Your task to perform on an android device: Clear the shopping cart on amazon.com. Search for "usb-c" on amazon.com, select the first entry, add it to the cart, then select checkout. Image 0: 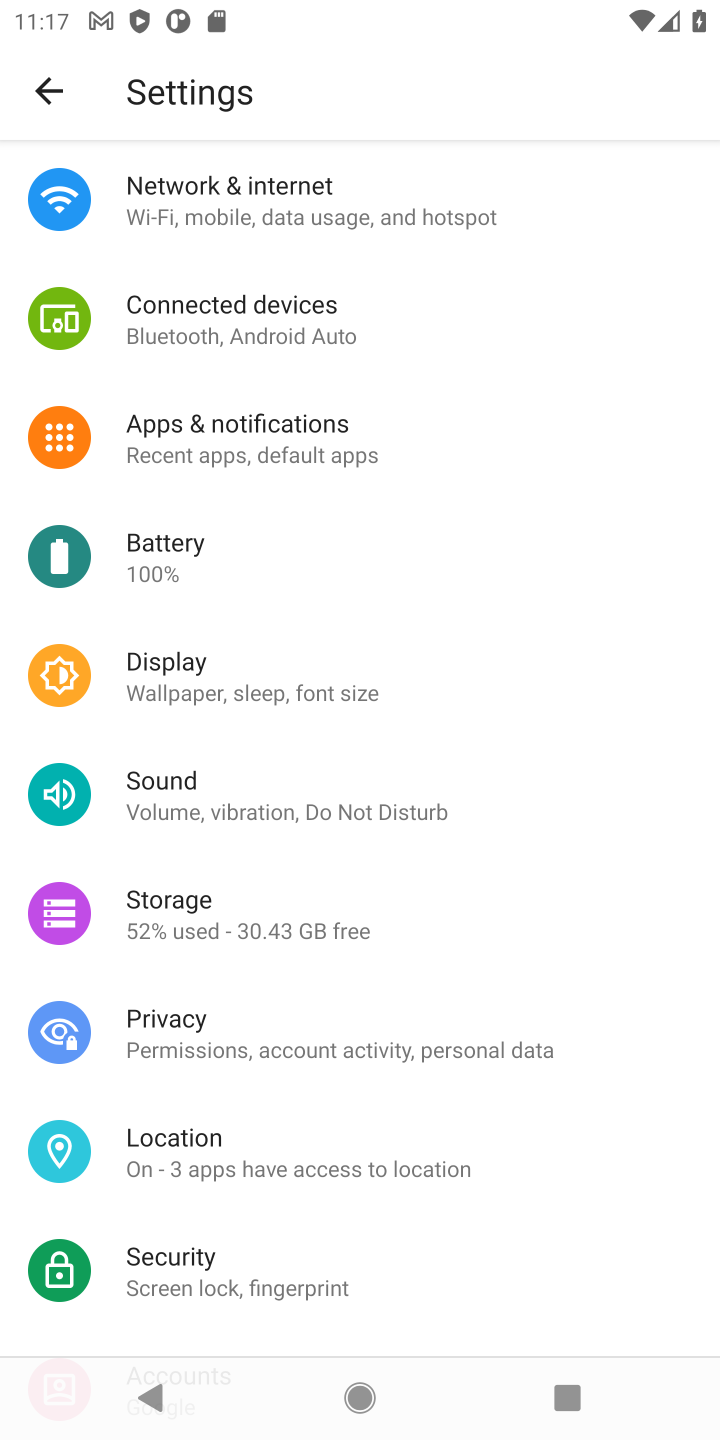
Step 0: press home button
Your task to perform on an android device: Clear the shopping cart on amazon.com. Search for "usb-c" on amazon.com, select the first entry, add it to the cart, then select checkout. Image 1: 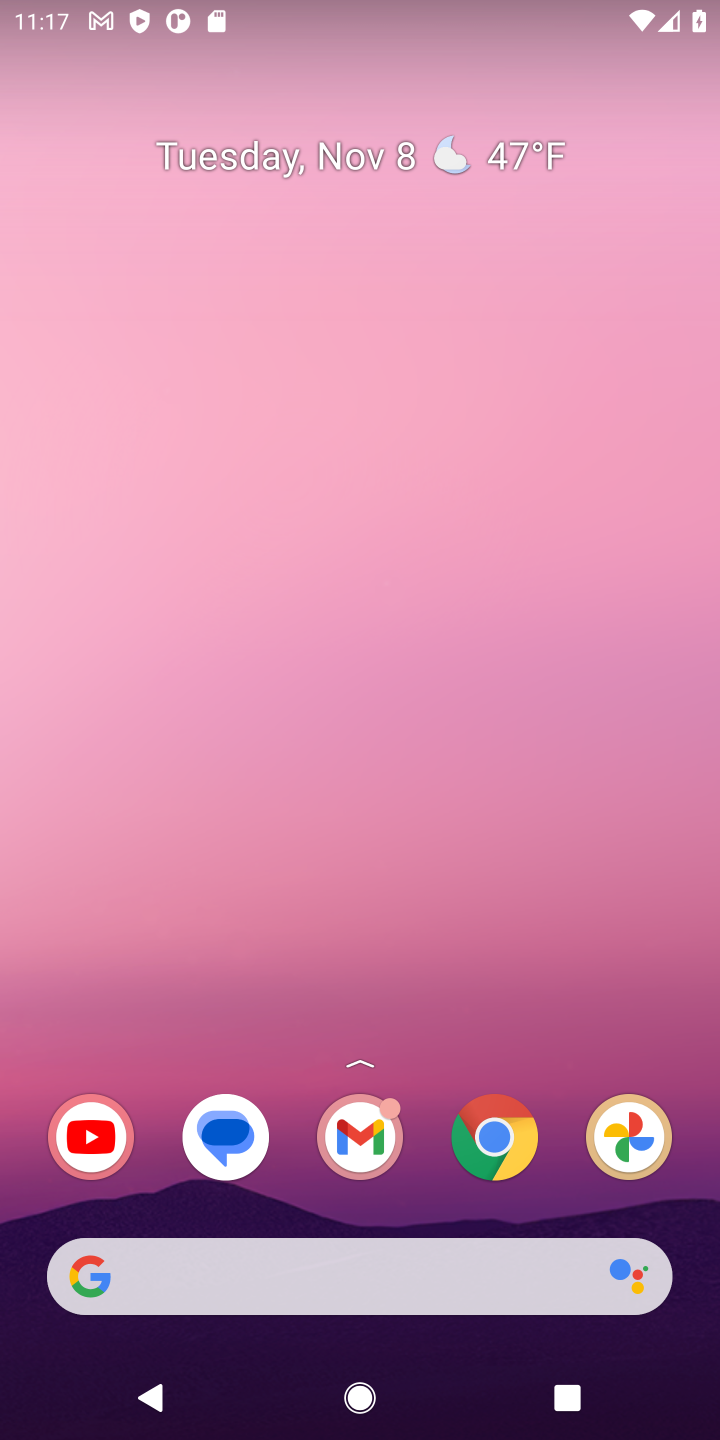
Step 1: click (501, 1147)
Your task to perform on an android device: Clear the shopping cart on amazon.com. Search for "usb-c" on amazon.com, select the first entry, add it to the cart, then select checkout. Image 2: 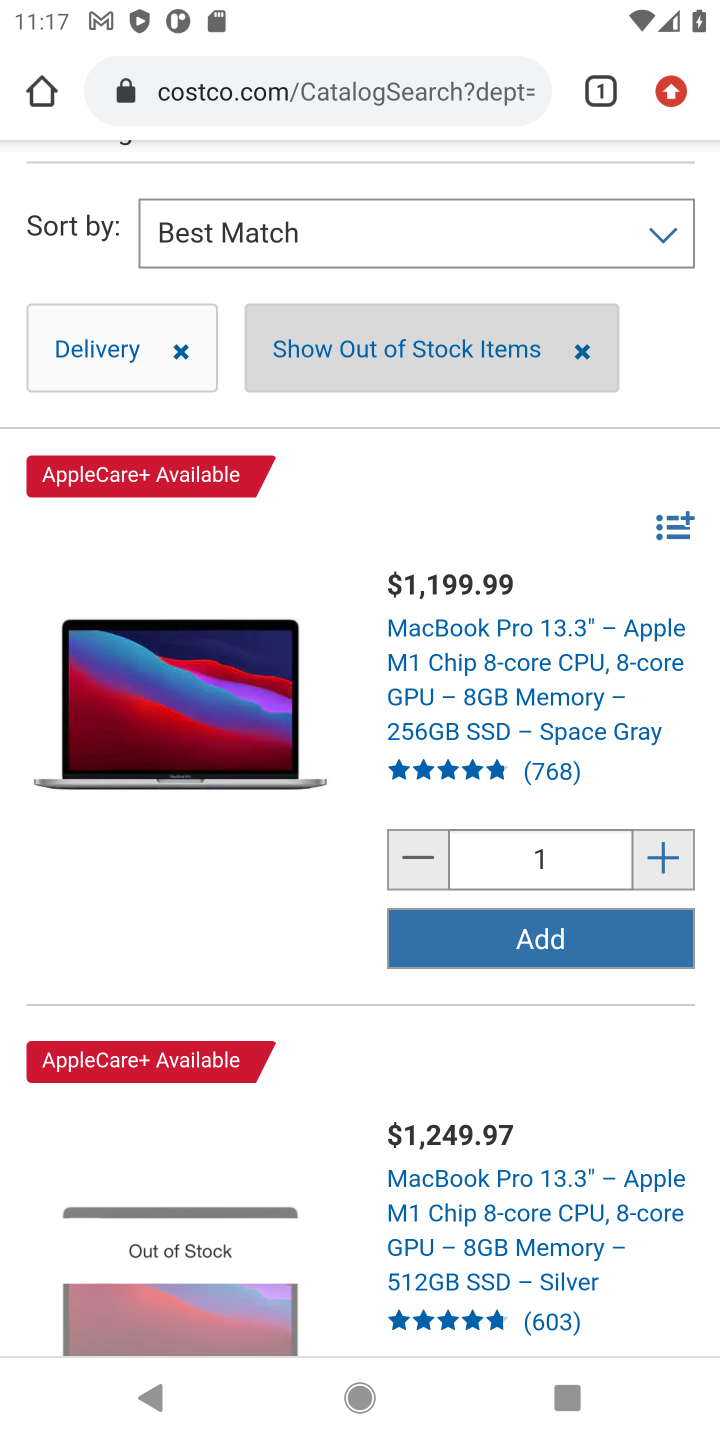
Step 2: click (413, 84)
Your task to perform on an android device: Clear the shopping cart on amazon.com. Search for "usb-c" on amazon.com, select the first entry, add it to the cart, then select checkout. Image 3: 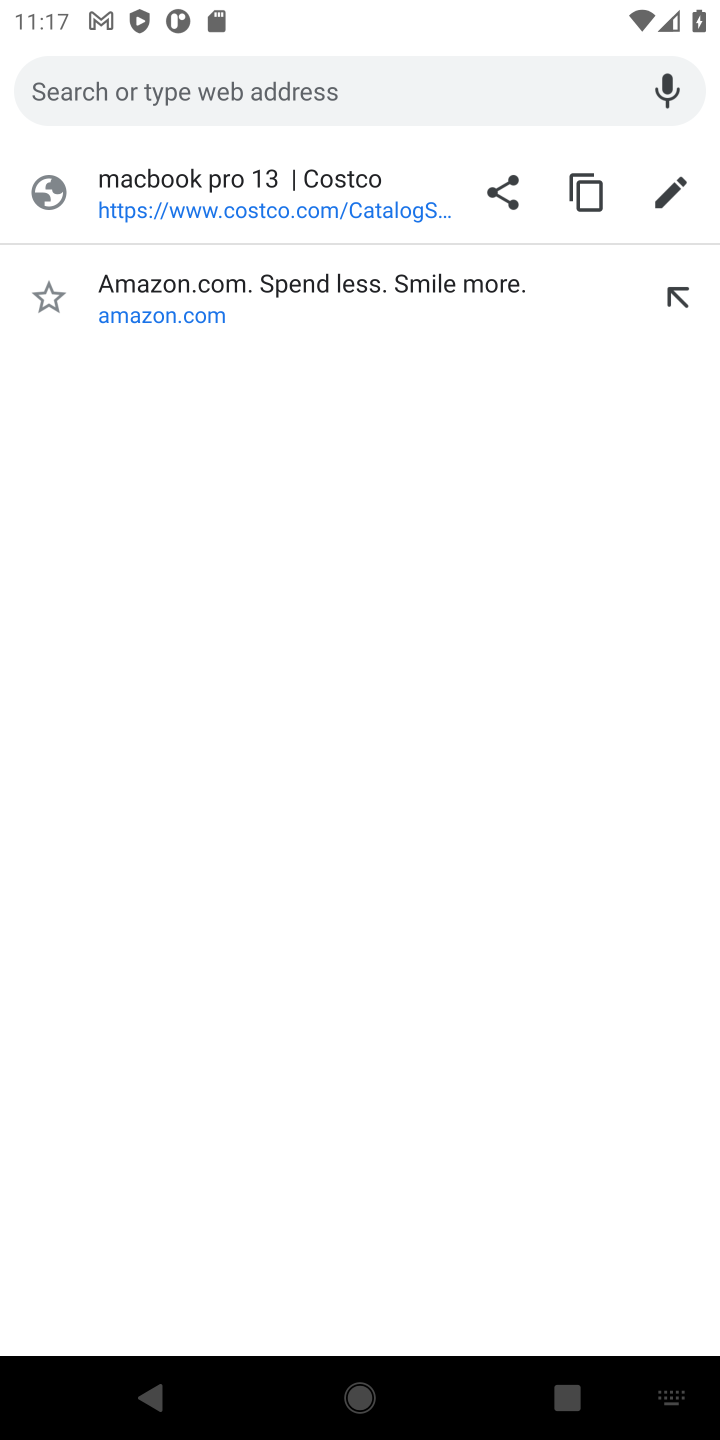
Step 3: type "amazon.com"
Your task to perform on an android device: Clear the shopping cart on amazon.com. Search for "usb-c" on amazon.com, select the first entry, add it to the cart, then select checkout. Image 4: 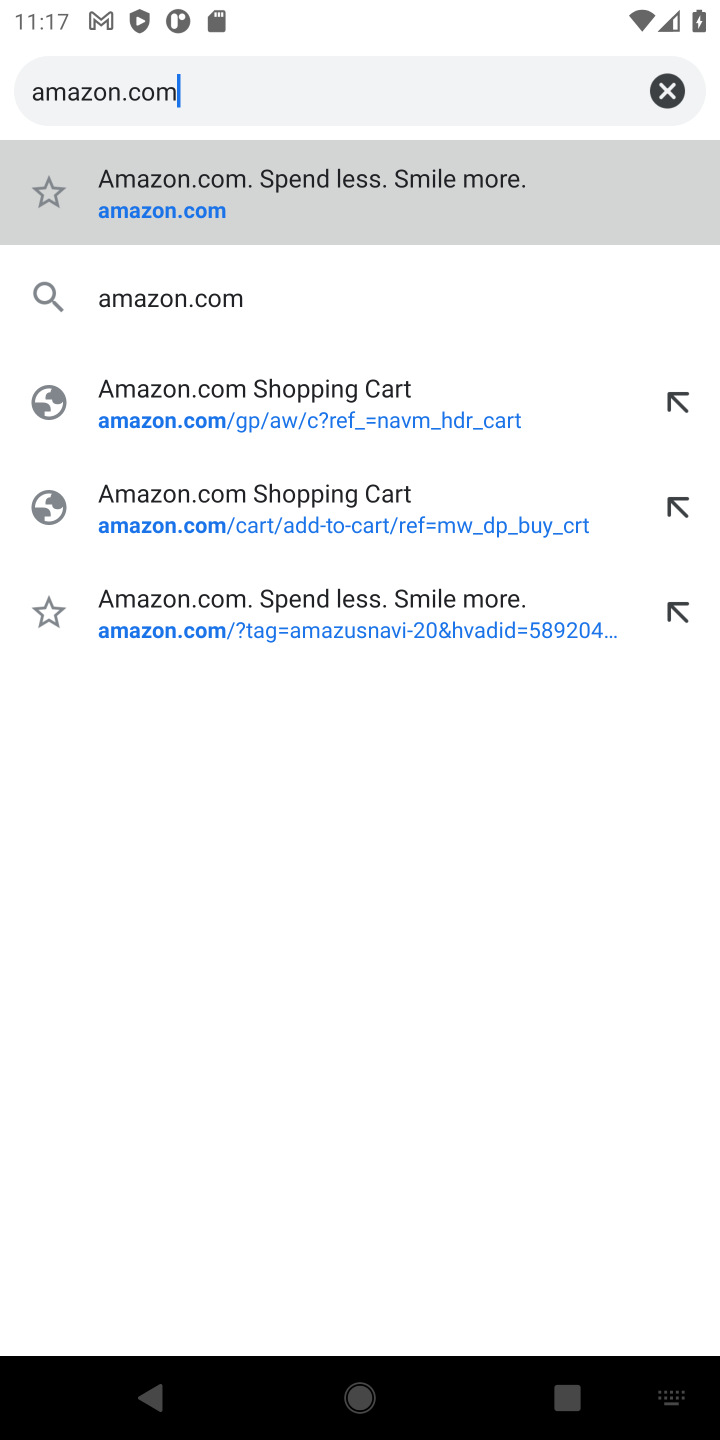
Step 4: click (189, 292)
Your task to perform on an android device: Clear the shopping cart on amazon.com. Search for "usb-c" on amazon.com, select the first entry, add it to the cart, then select checkout. Image 5: 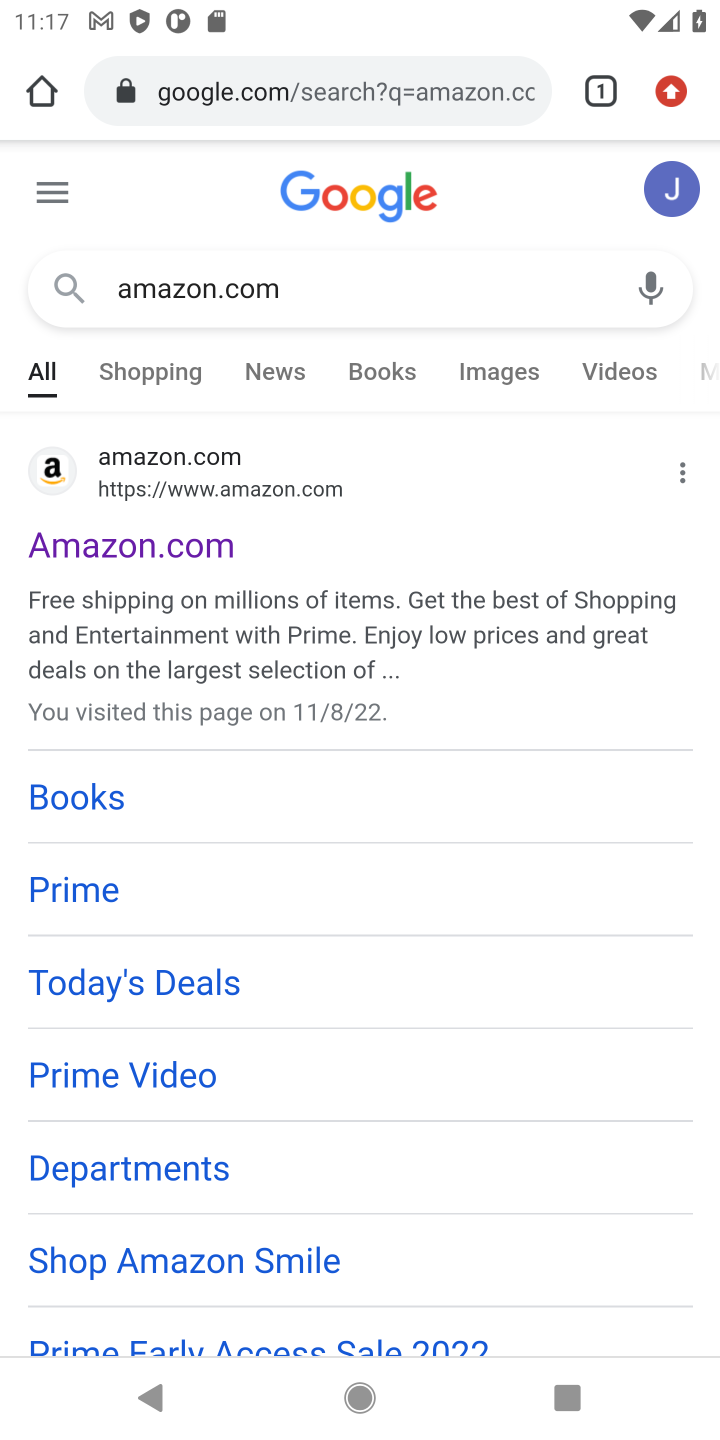
Step 5: click (174, 540)
Your task to perform on an android device: Clear the shopping cart on amazon.com. Search for "usb-c" on amazon.com, select the first entry, add it to the cart, then select checkout. Image 6: 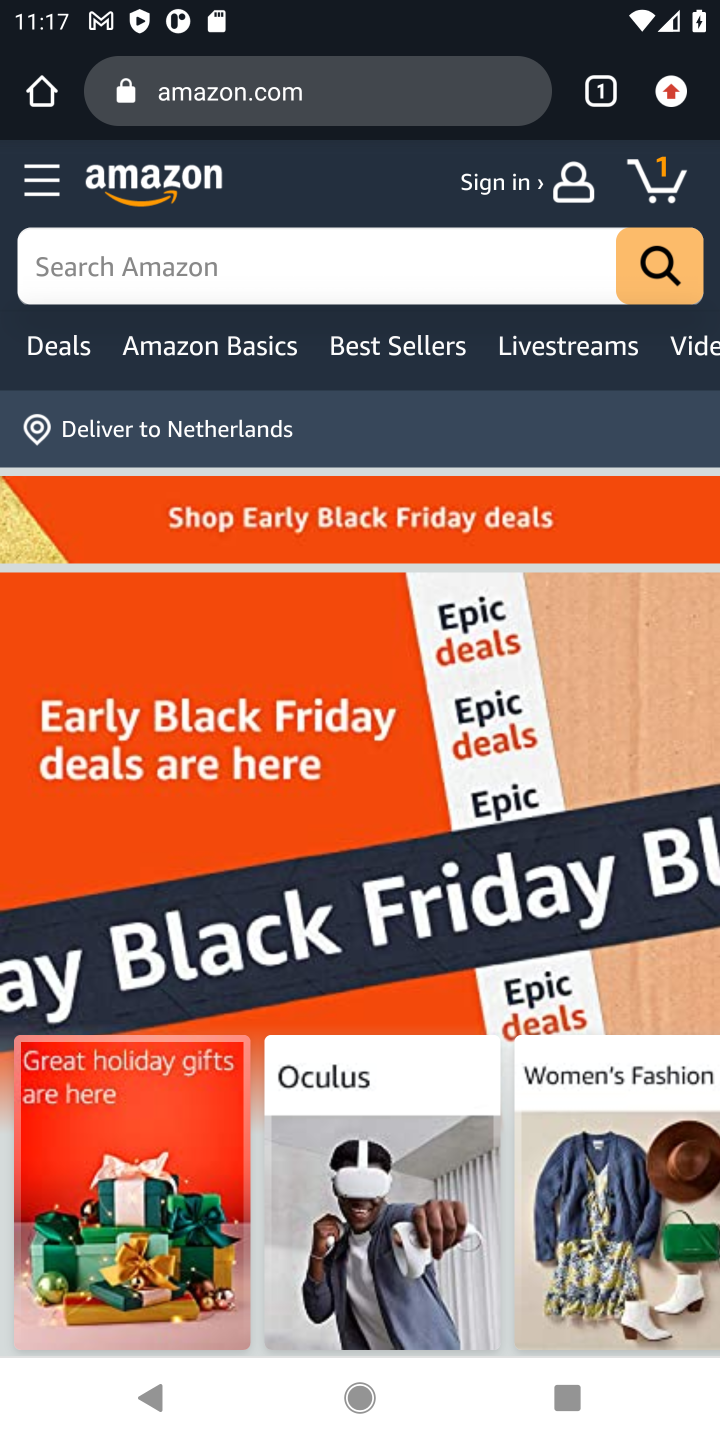
Step 6: click (660, 175)
Your task to perform on an android device: Clear the shopping cart on amazon.com. Search for "usb-c" on amazon.com, select the first entry, add it to the cart, then select checkout. Image 7: 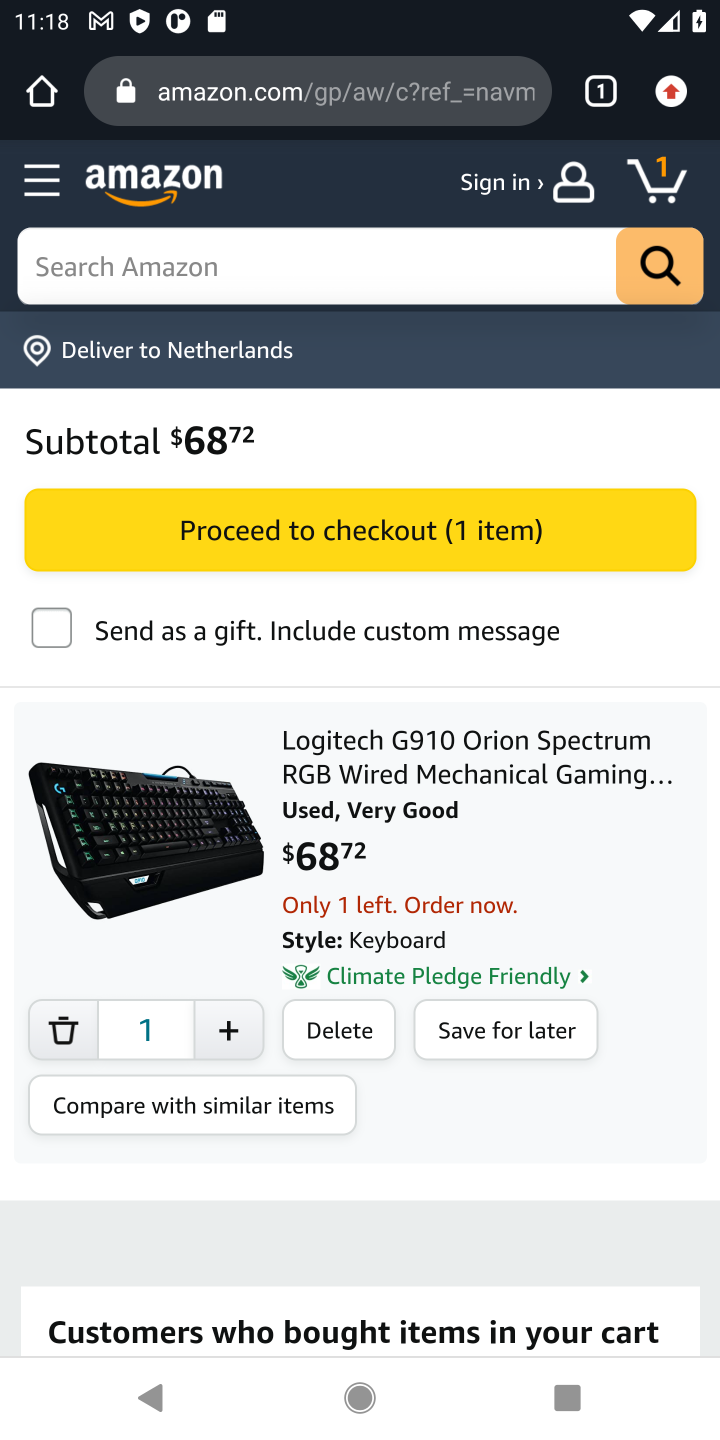
Step 7: click (350, 1035)
Your task to perform on an android device: Clear the shopping cart on amazon.com. Search for "usb-c" on amazon.com, select the first entry, add it to the cart, then select checkout. Image 8: 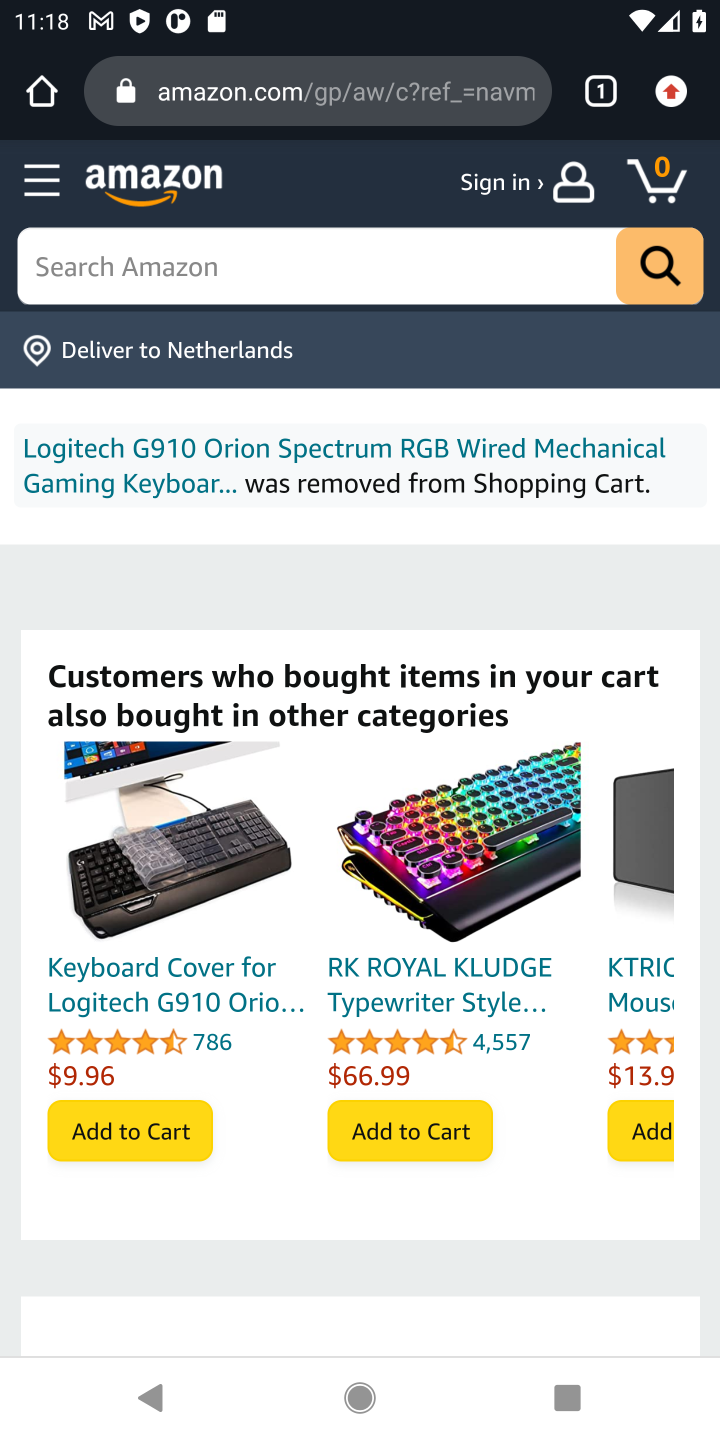
Step 8: click (392, 269)
Your task to perform on an android device: Clear the shopping cart on amazon.com. Search for "usb-c" on amazon.com, select the first entry, add it to the cart, then select checkout. Image 9: 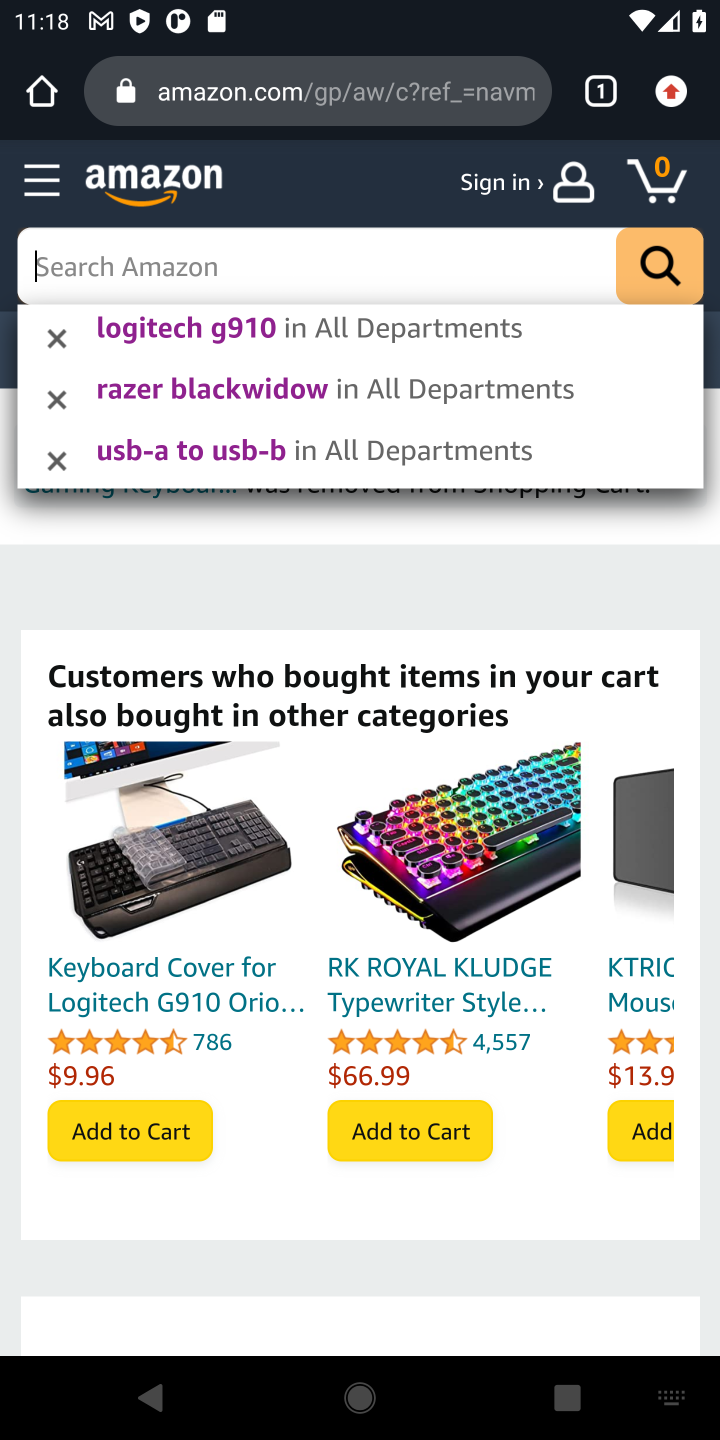
Step 9: type "usb-c"
Your task to perform on an android device: Clear the shopping cart on amazon.com. Search for "usb-c" on amazon.com, select the first entry, add it to the cart, then select checkout. Image 10: 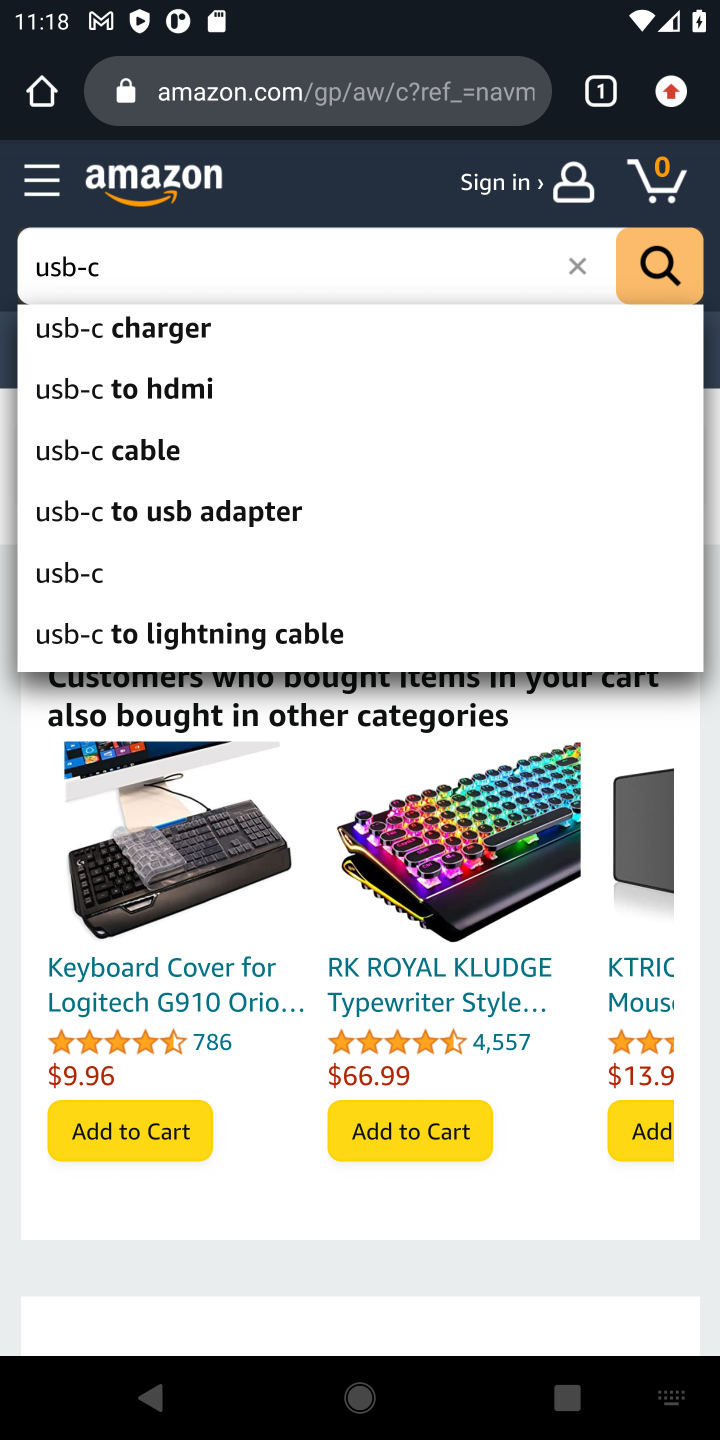
Step 10: click (88, 575)
Your task to perform on an android device: Clear the shopping cart on amazon.com. Search for "usb-c" on amazon.com, select the first entry, add it to the cart, then select checkout. Image 11: 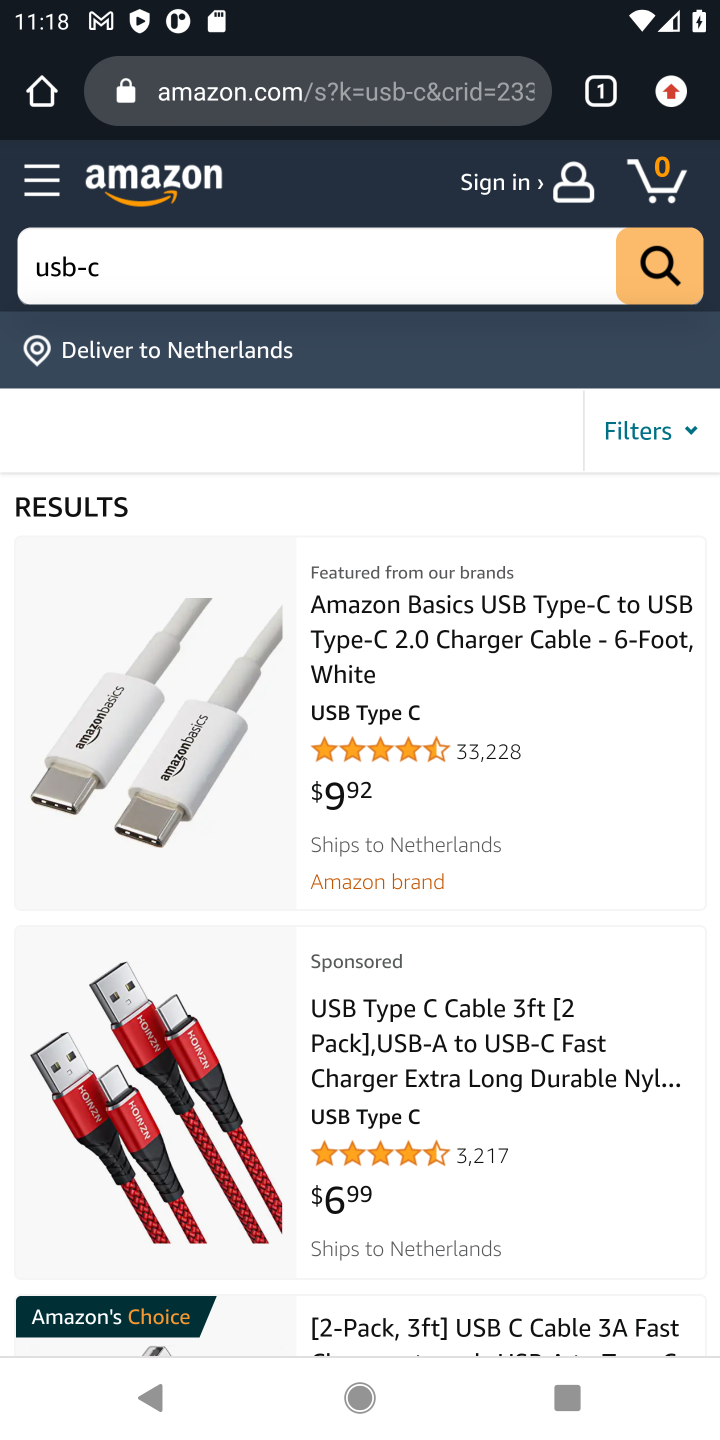
Step 11: drag from (461, 1150) to (507, 692)
Your task to perform on an android device: Clear the shopping cart on amazon.com. Search for "usb-c" on amazon.com, select the first entry, add it to the cart, then select checkout. Image 12: 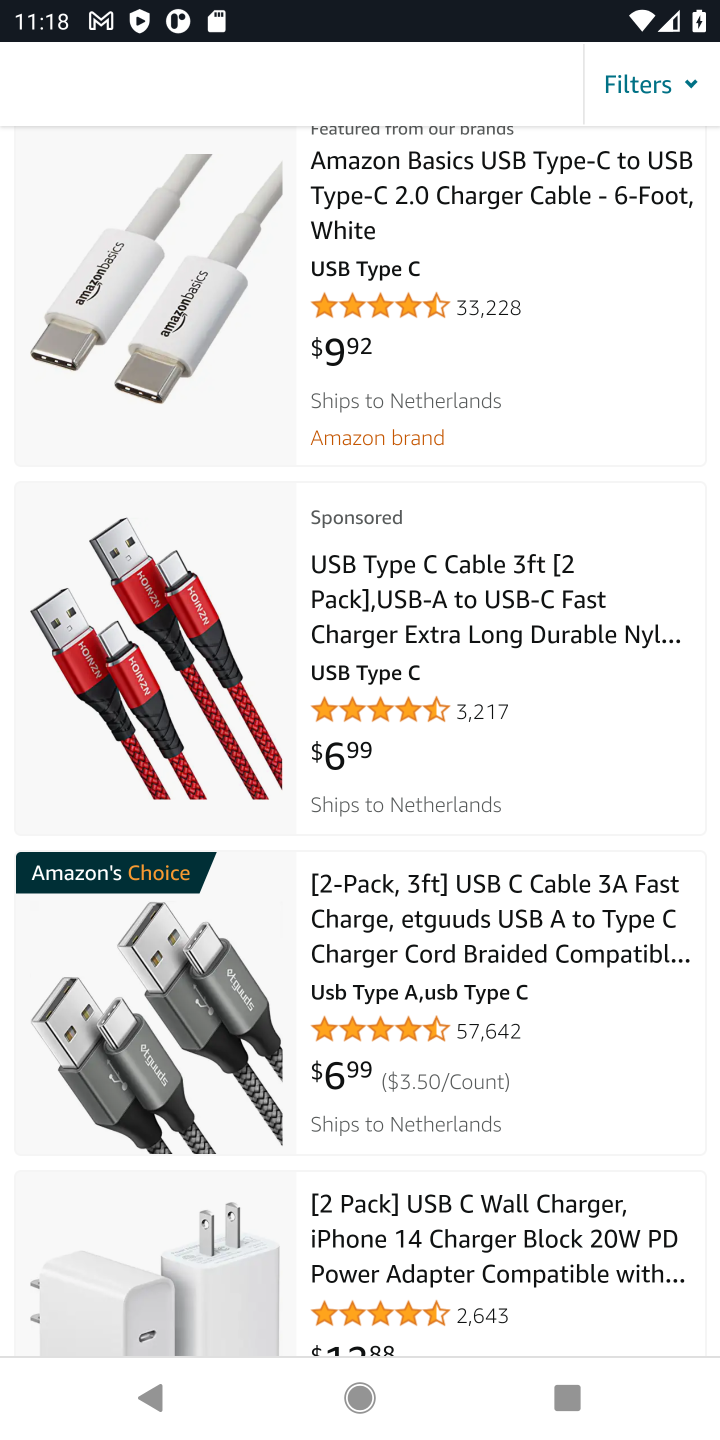
Step 12: drag from (436, 649) to (453, 920)
Your task to perform on an android device: Clear the shopping cart on amazon.com. Search for "usb-c" on amazon.com, select the first entry, add it to the cart, then select checkout. Image 13: 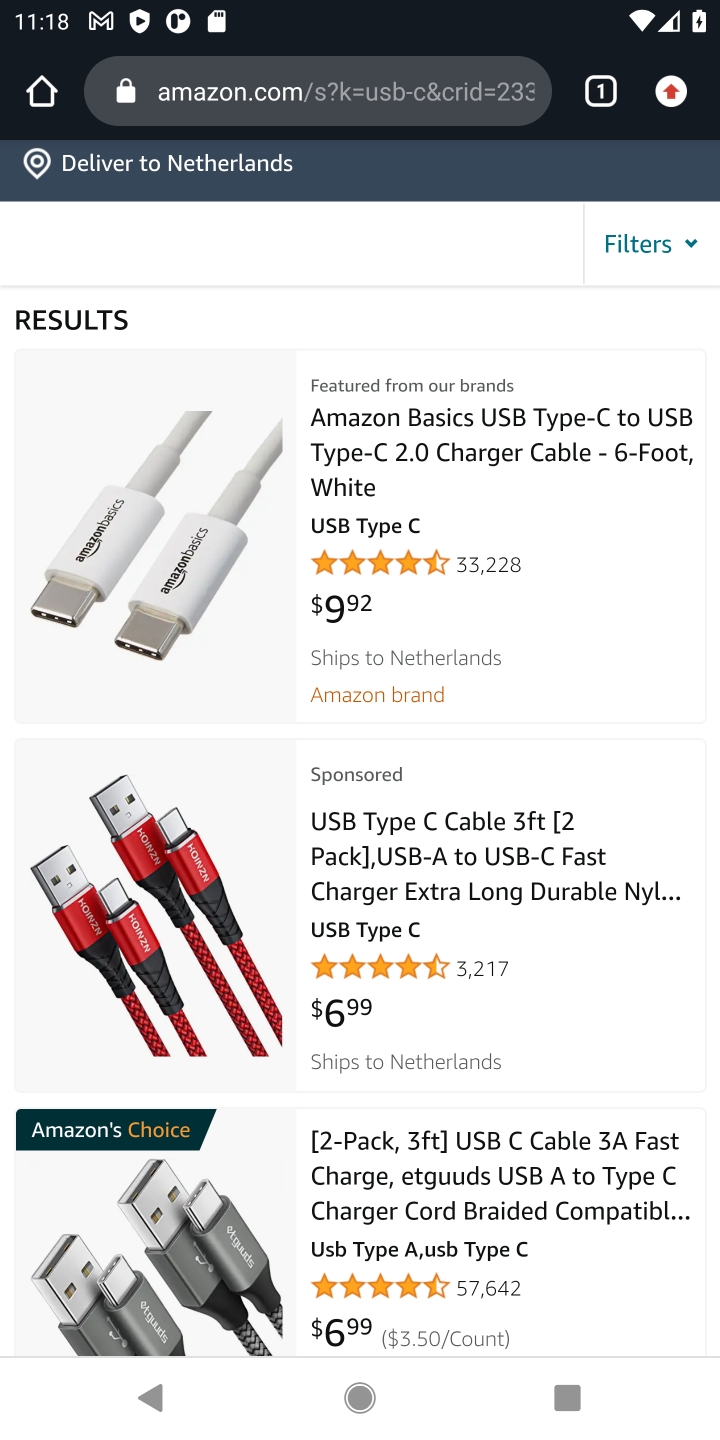
Step 13: click (477, 458)
Your task to perform on an android device: Clear the shopping cart on amazon.com. Search for "usb-c" on amazon.com, select the first entry, add it to the cart, then select checkout. Image 14: 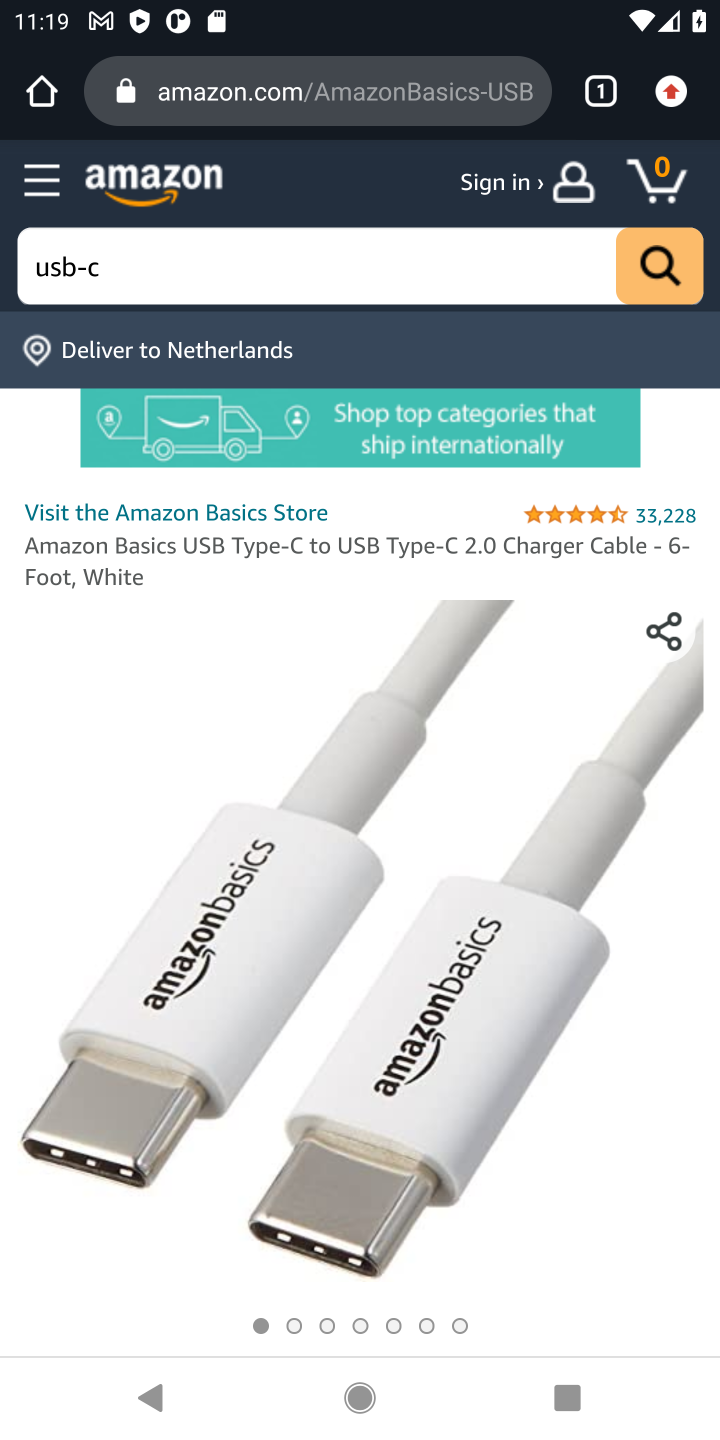
Step 14: drag from (450, 1039) to (461, 399)
Your task to perform on an android device: Clear the shopping cart on amazon.com. Search for "usb-c" on amazon.com, select the first entry, add it to the cart, then select checkout. Image 15: 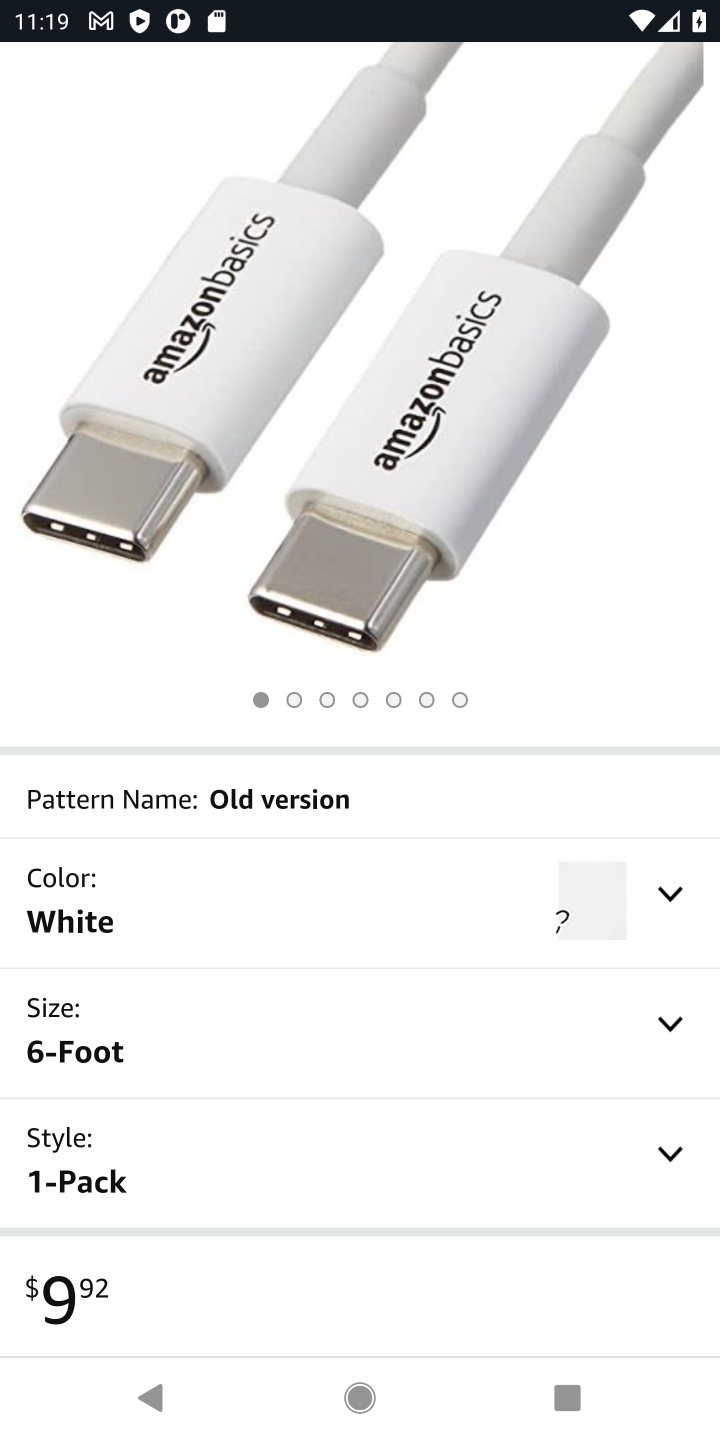
Step 15: drag from (398, 1036) to (462, 286)
Your task to perform on an android device: Clear the shopping cart on amazon.com. Search for "usb-c" on amazon.com, select the first entry, add it to the cart, then select checkout. Image 16: 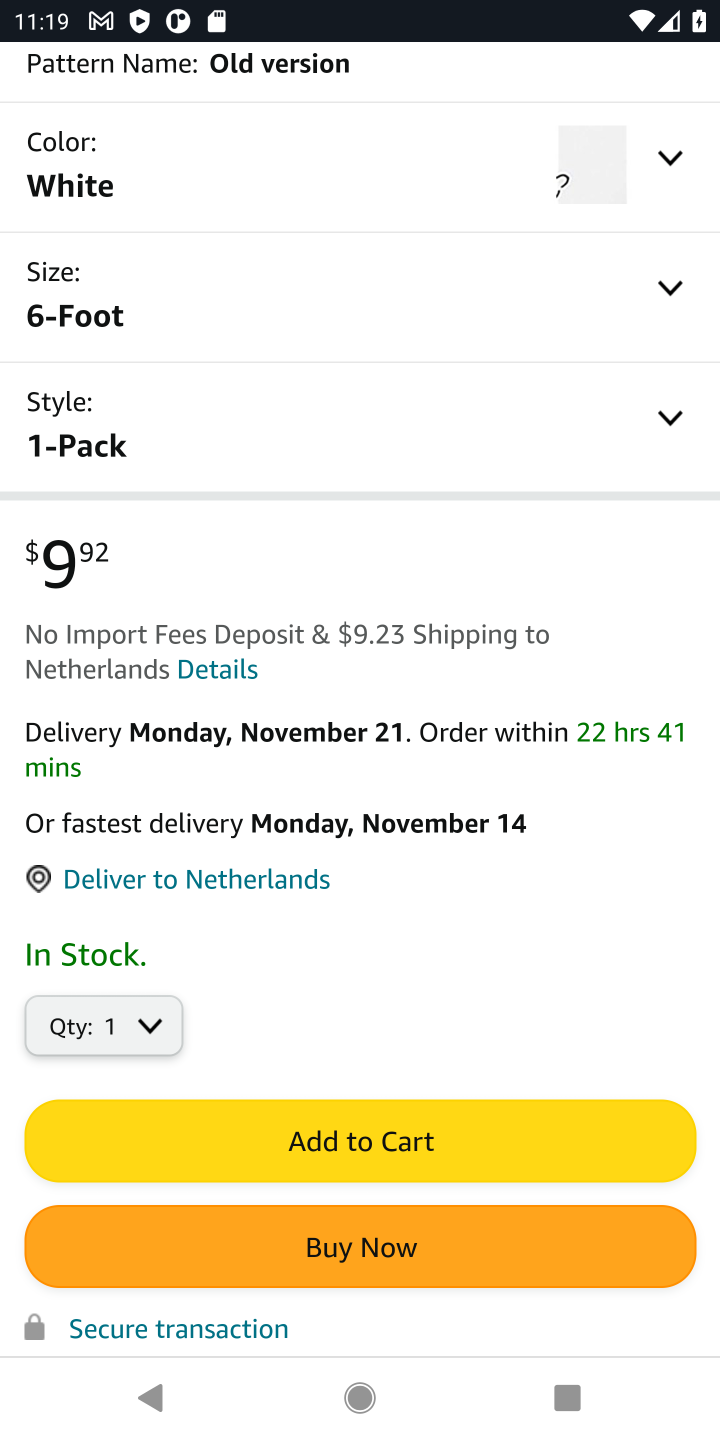
Step 16: click (348, 1146)
Your task to perform on an android device: Clear the shopping cart on amazon.com. Search for "usb-c" on amazon.com, select the first entry, add it to the cart, then select checkout. Image 17: 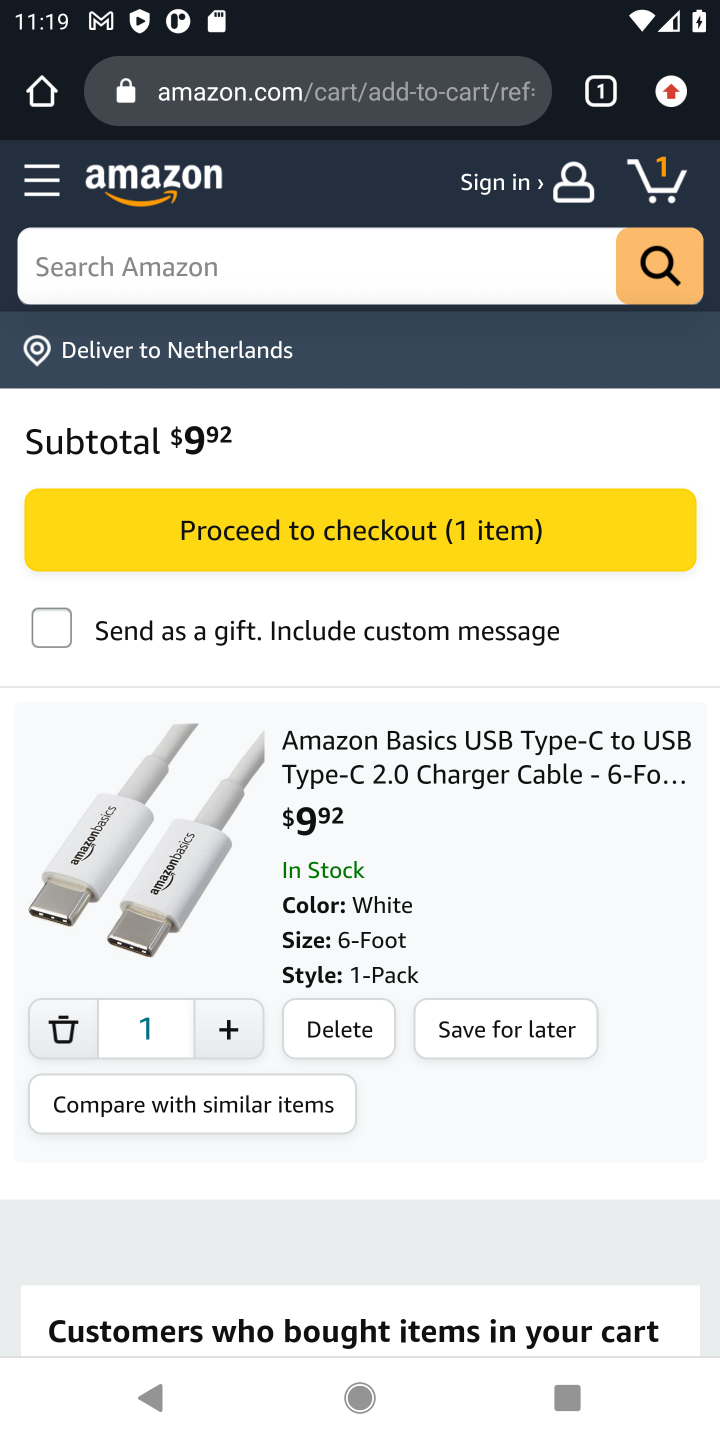
Step 17: click (317, 529)
Your task to perform on an android device: Clear the shopping cart on amazon.com. Search for "usb-c" on amazon.com, select the first entry, add it to the cart, then select checkout. Image 18: 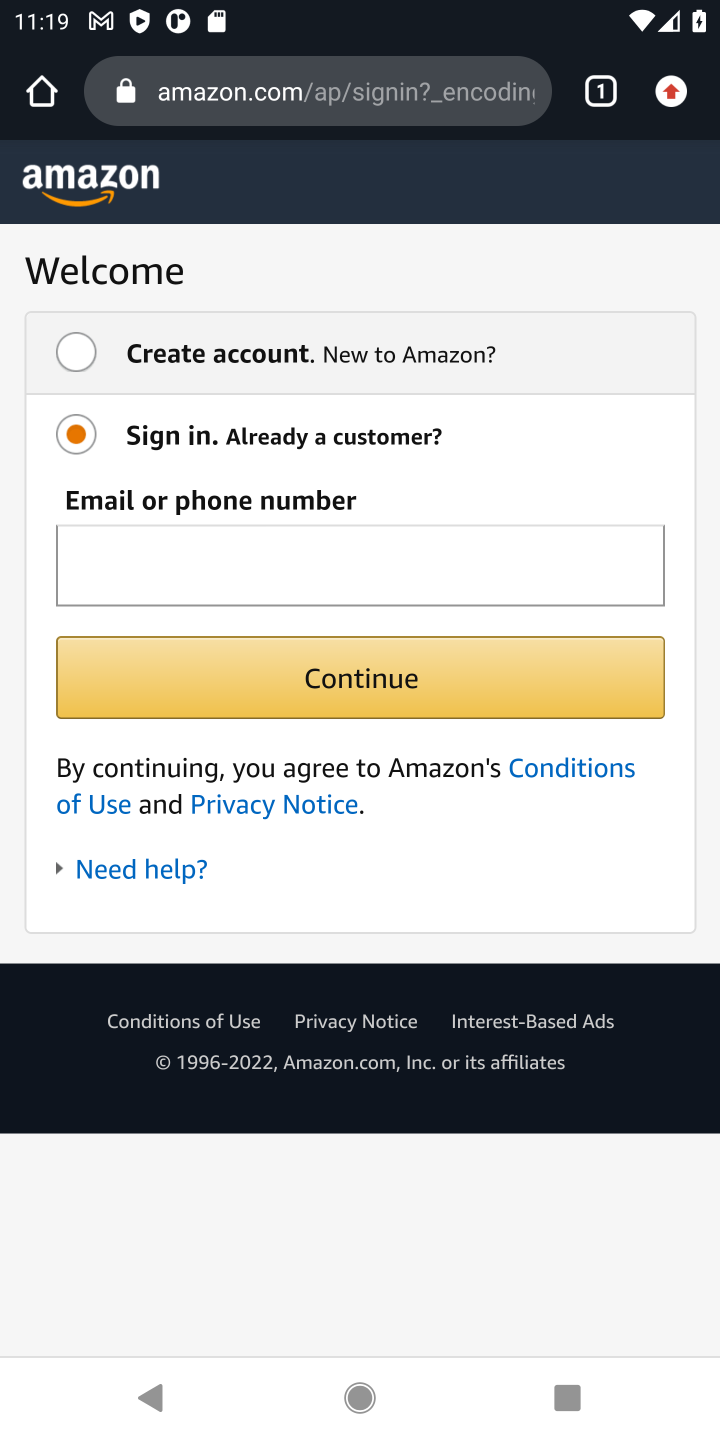
Step 18: task complete